Your task to perform on an android device: open app "Duolingo: language lessons" Image 0: 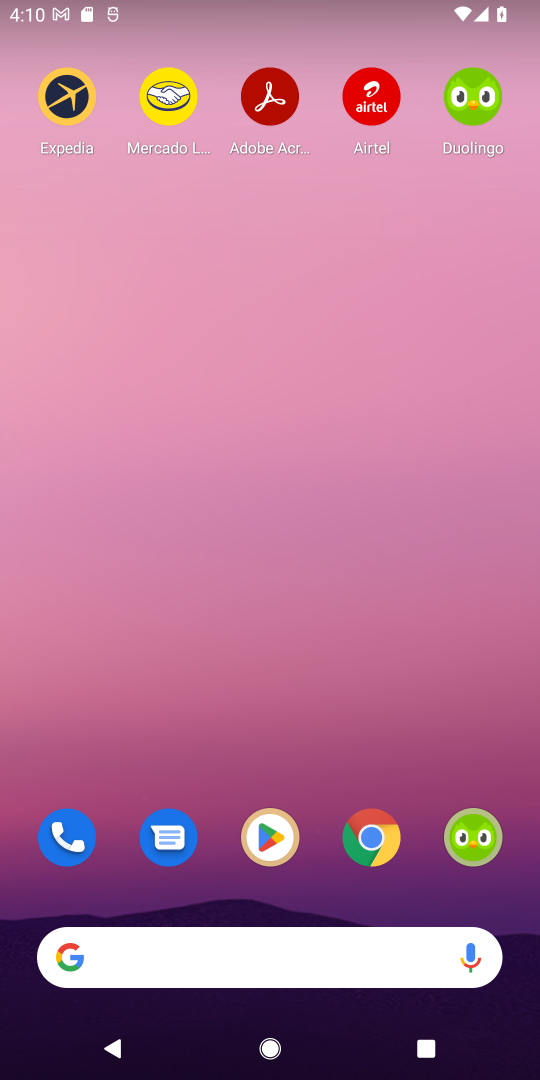
Step 0: press home button
Your task to perform on an android device: open app "Duolingo: language lessons" Image 1: 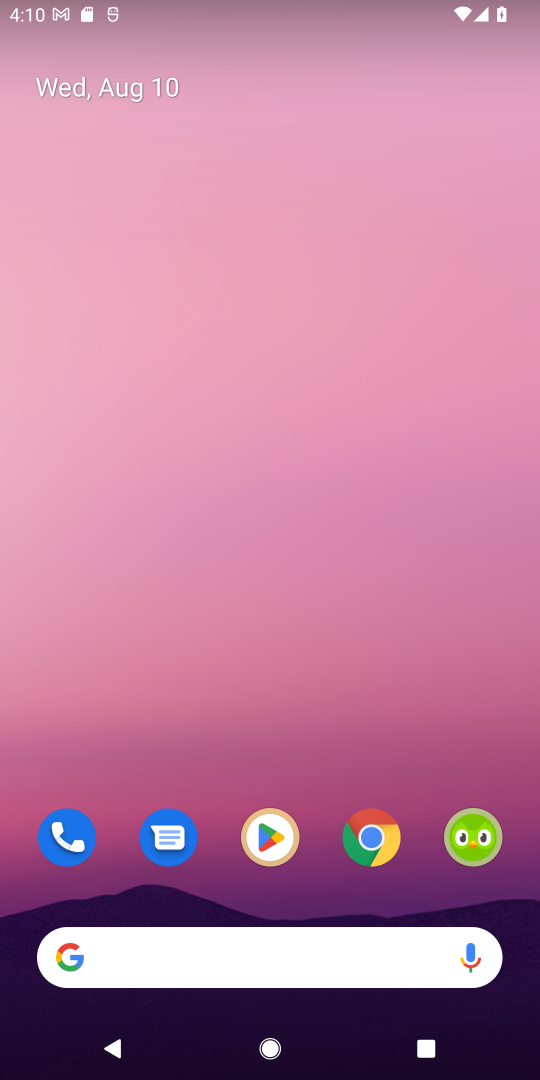
Step 1: click (273, 831)
Your task to perform on an android device: open app "Duolingo: language lessons" Image 2: 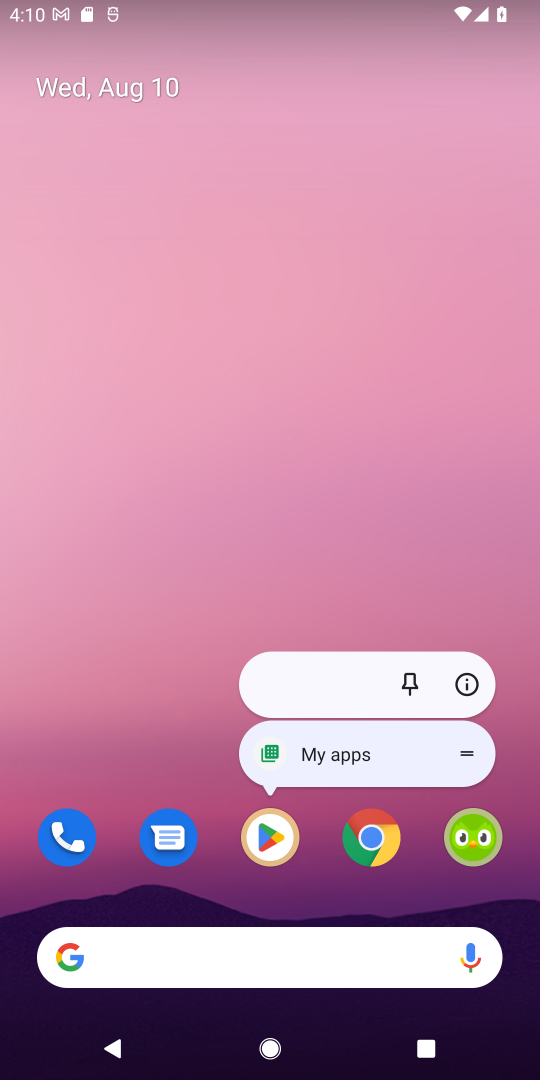
Step 2: click (273, 833)
Your task to perform on an android device: open app "Duolingo: language lessons" Image 3: 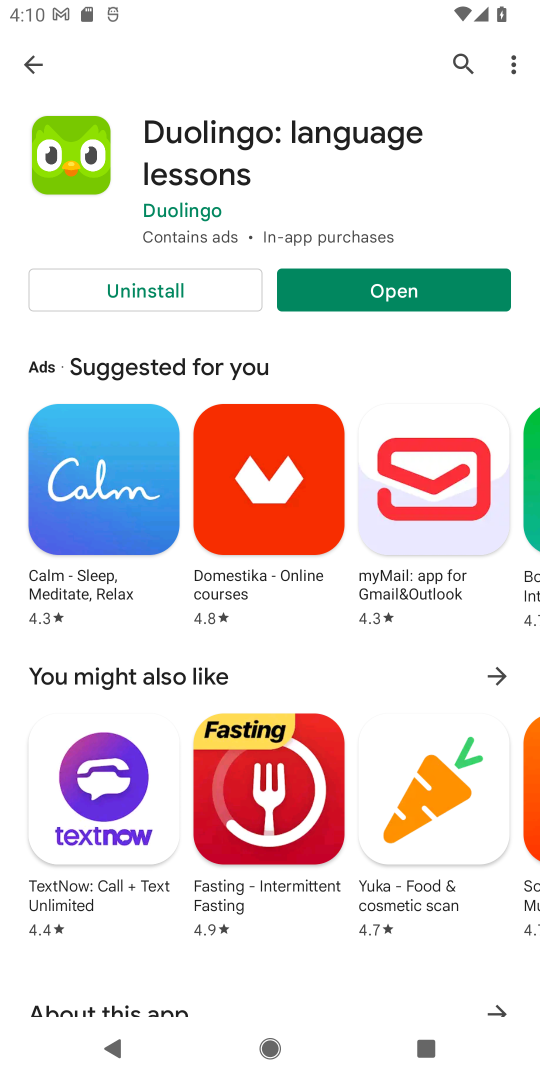
Step 3: click (414, 268)
Your task to perform on an android device: open app "Duolingo: language lessons" Image 4: 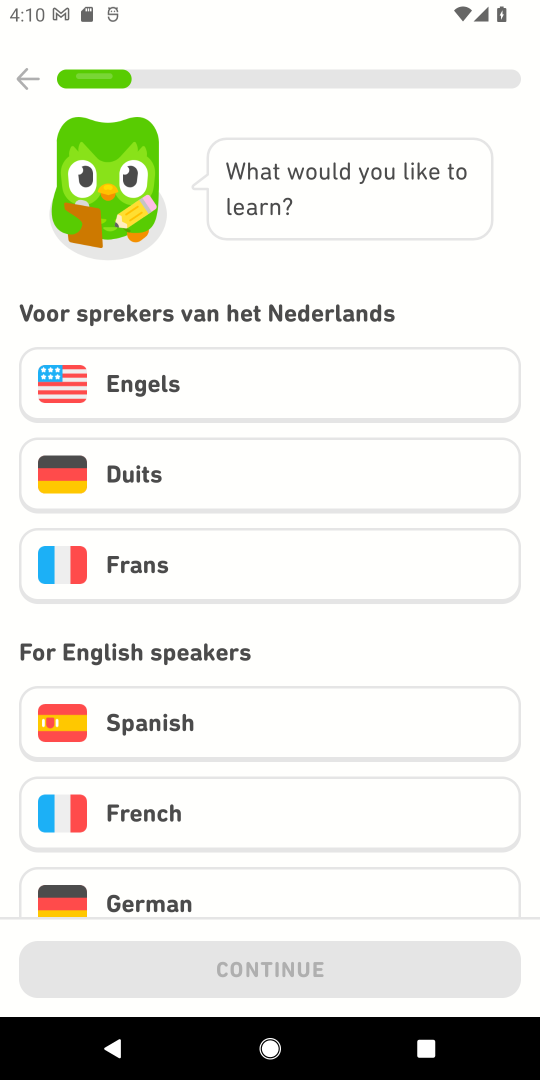
Step 4: task complete